Your task to perform on an android device: visit the assistant section in the google photos Image 0: 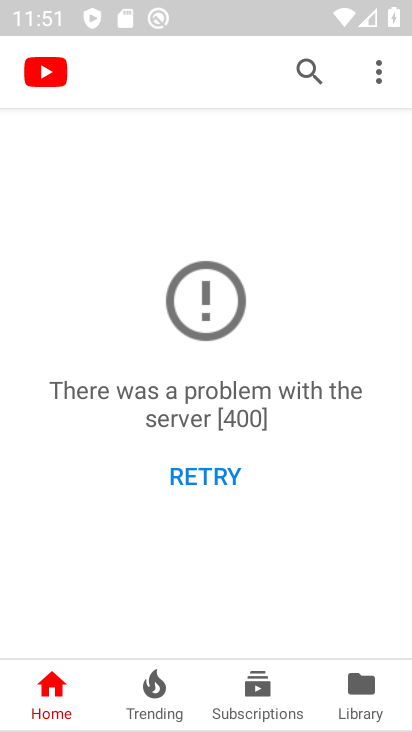
Step 0: press home button
Your task to perform on an android device: visit the assistant section in the google photos Image 1: 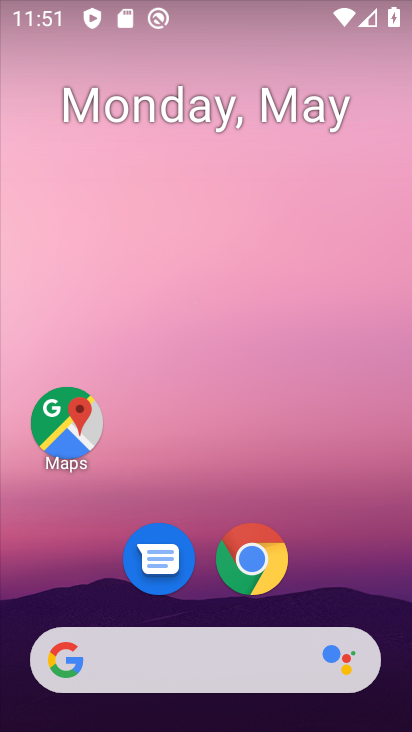
Step 1: drag from (205, 599) to (277, 222)
Your task to perform on an android device: visit the assistant section in the google photos Image 2: 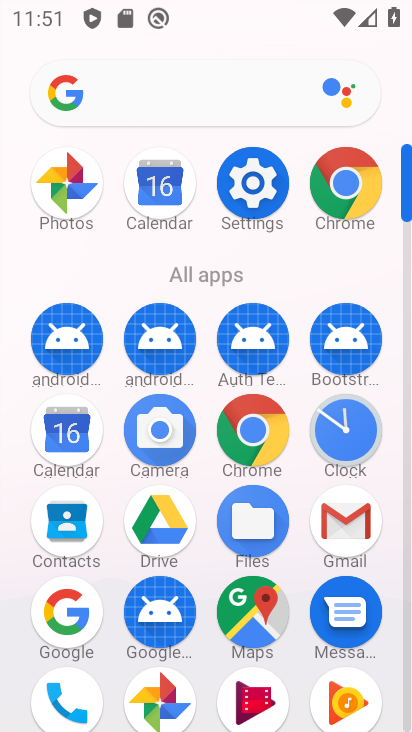
Step 2: click (154, 684)
Your task to perform on an android device: visit the assistant section in the google photos Image 3: 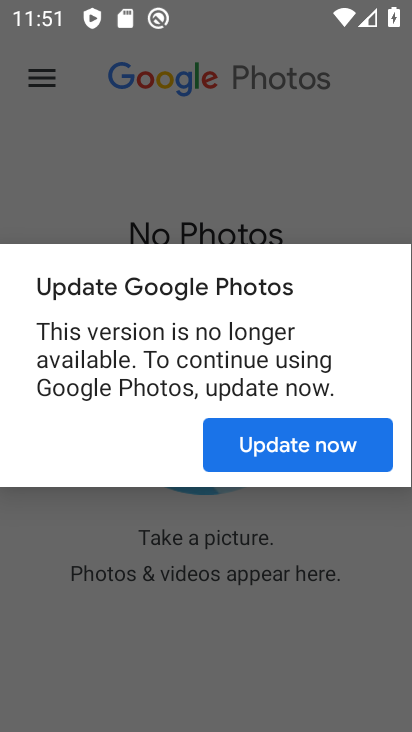
Step 3: click (305, 426)
Your task to perform on an android device: visit the assistant section in the google photos Image 4: 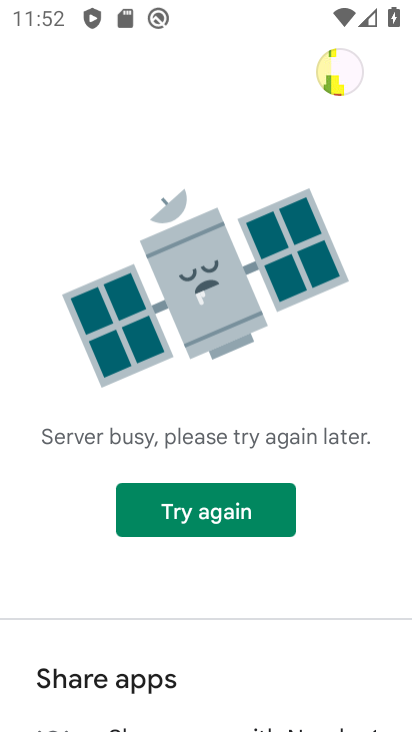
Step 4: task complete